Your task to perform on an android device: check storage Image 0: 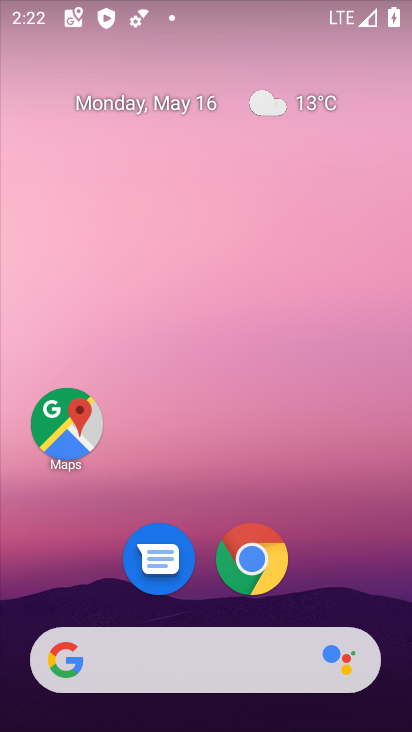
Step 0: drag from (126, 417) to (191, 18)
Your task to perform on an android device: check storage Image 1: 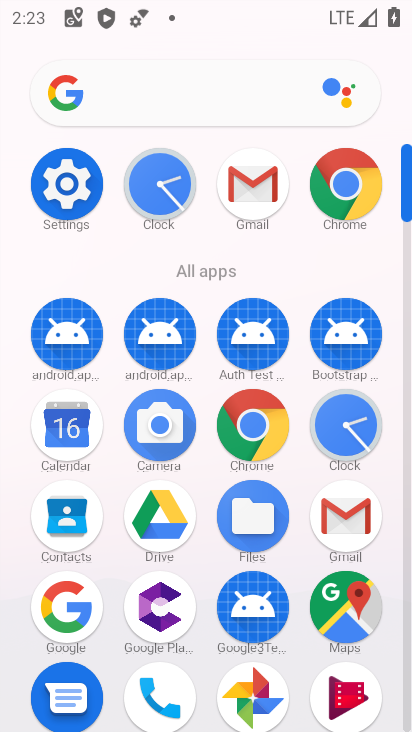
Step 1: click (61, 164)
Your task to perform on an android device: check storage Image 2: 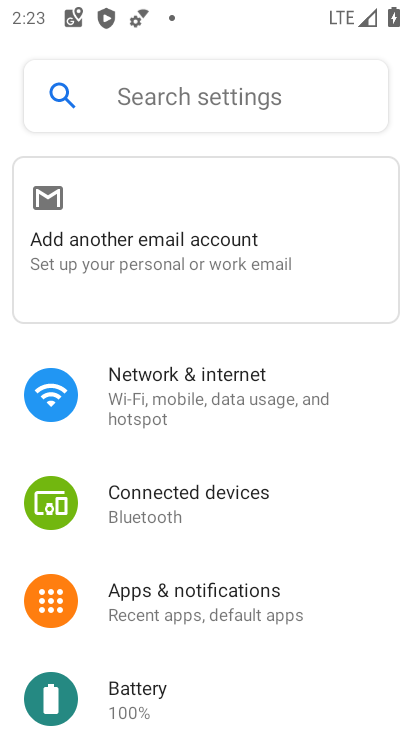
Step 2: click (188, 394)
Your task to perform on an android device: check storage Image 3: 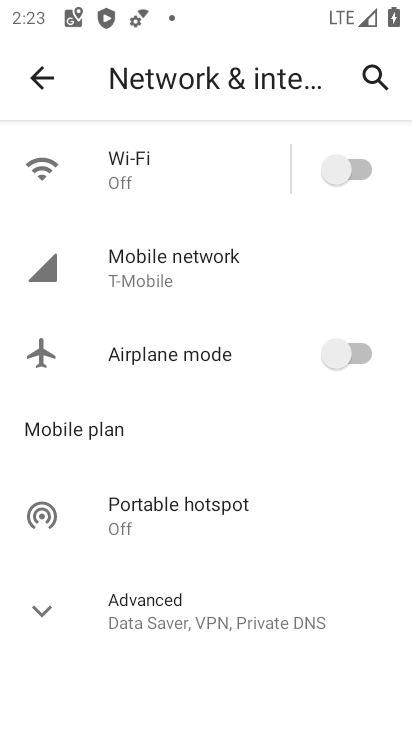
Step 3: click (165, 266)
Your task to perform on an android device: check storage Image 4: 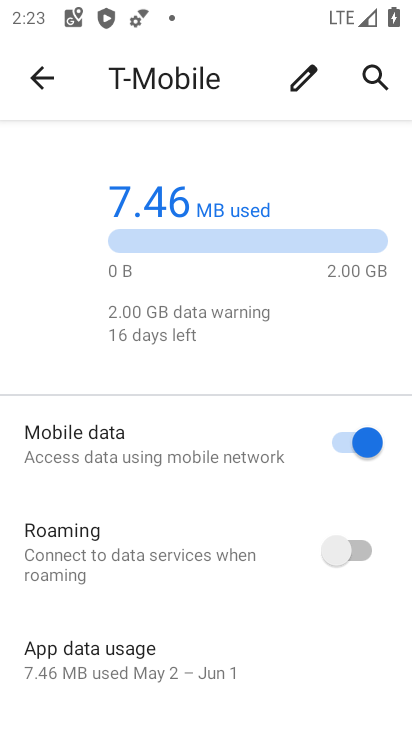
Step 4: click (35, 63)
Your task to perform on an android device: check storage Image 5: 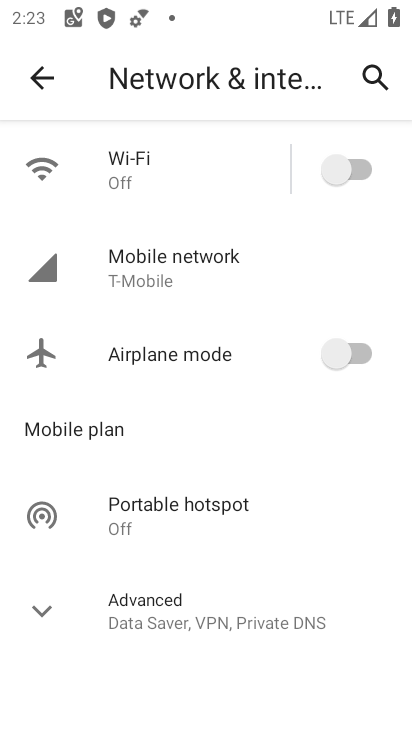
Step 5: click (35, 63)
Your task to perform on an android device: check storage Image 6: 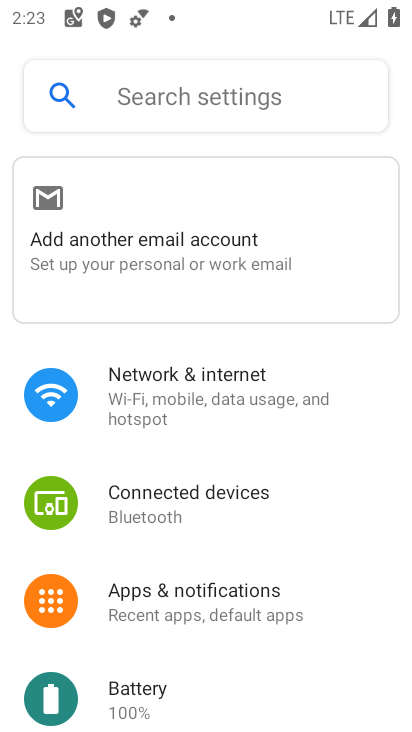
Step 6: drag from (214, 656) to (343, 113)
Your task to perform on an android device: check storage Image 7: 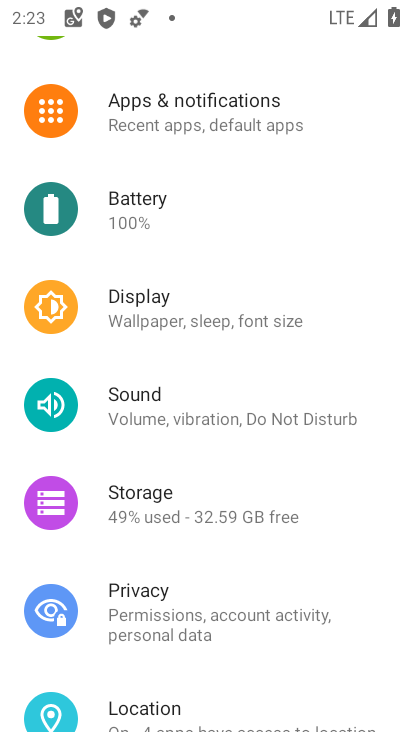
Step 7: click (143, 514)
Your task to perform on an android device: check storage Image 8: 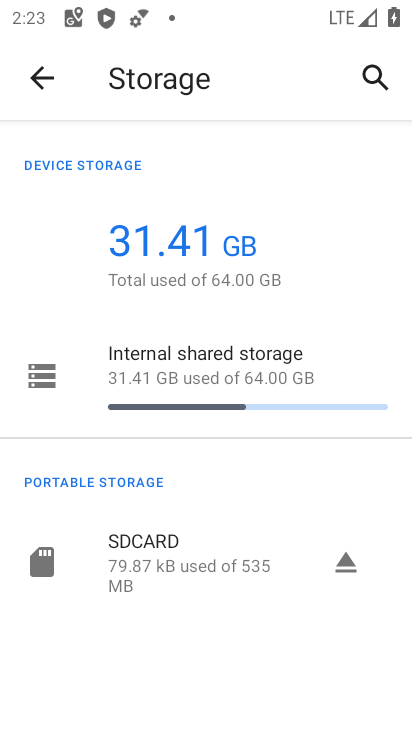
Step 8: task complete